Your task to perform on an android device: open app "Google Play services" Image 0: 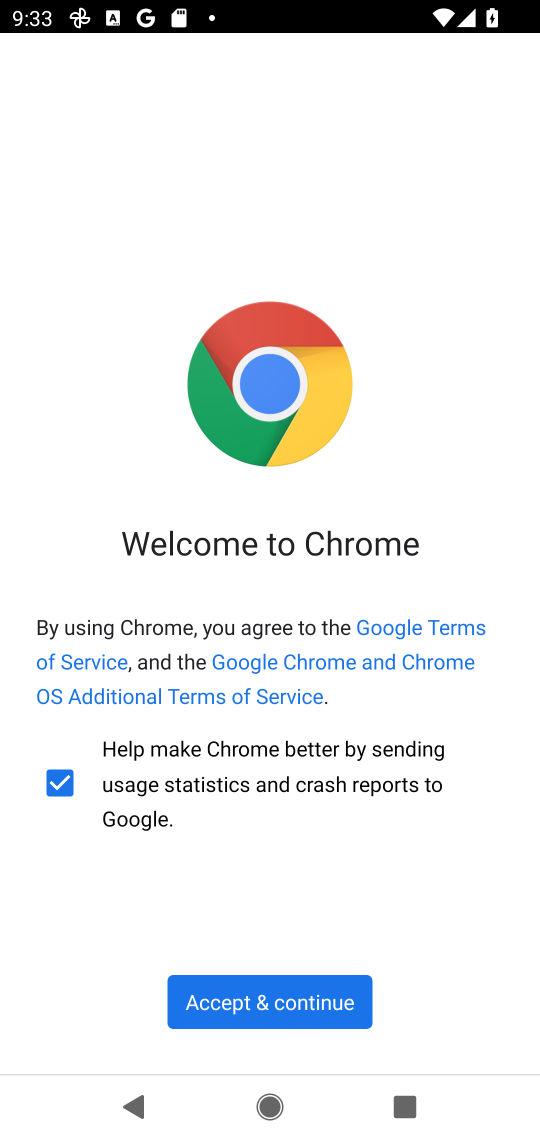
Step 0: press home button
Your task to perform on an android device: open app "Google Play services" Image 1: 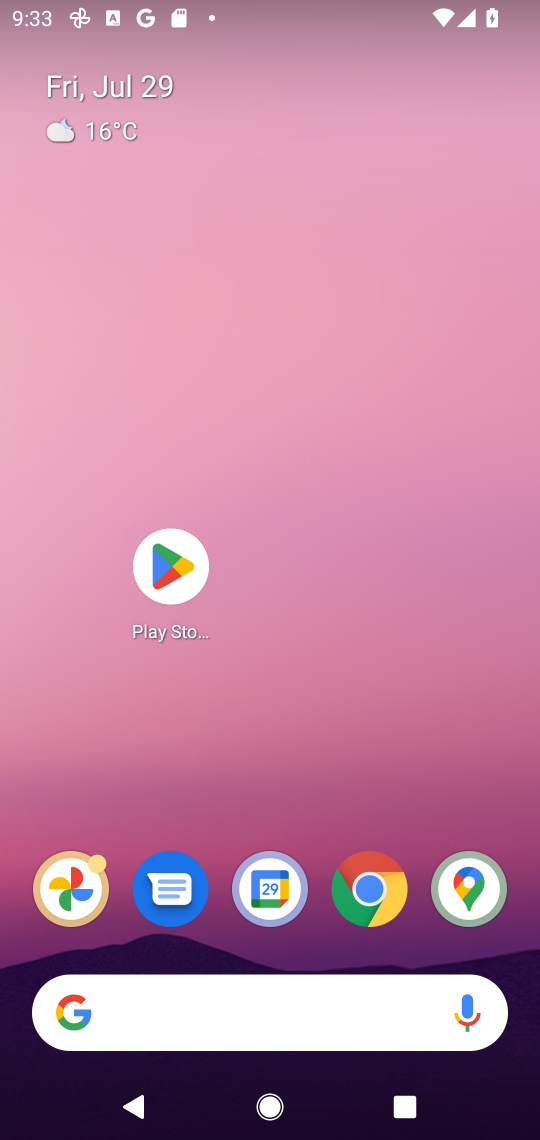
Step 1: click (180, 567)
Your task to perform on an android device: open app "Google Play services" Image 2: 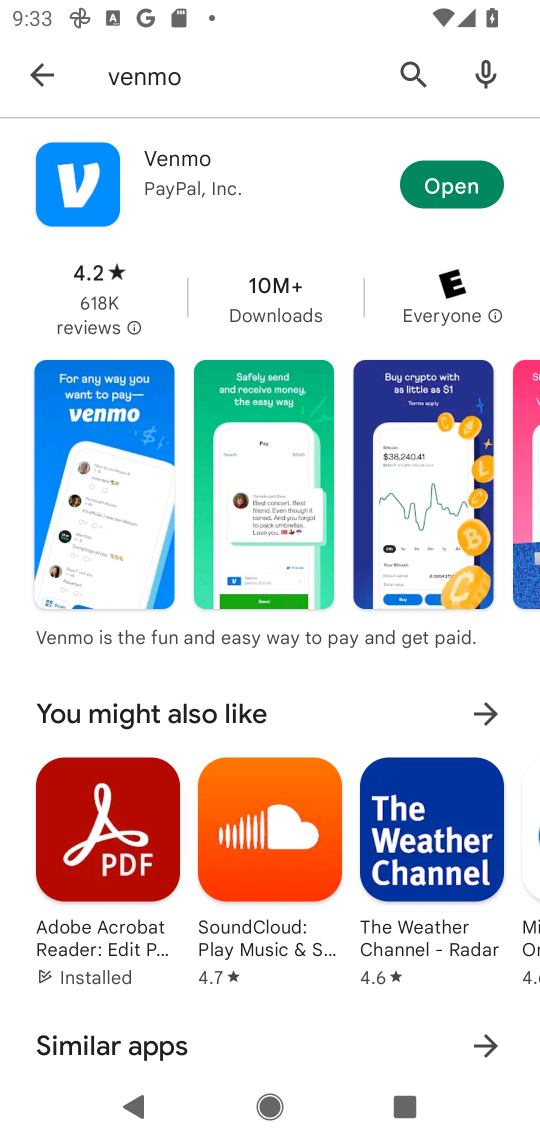
Step 2: click (403, 72)
Your task to perform on an android device: open app "Google Play services" Image 3: 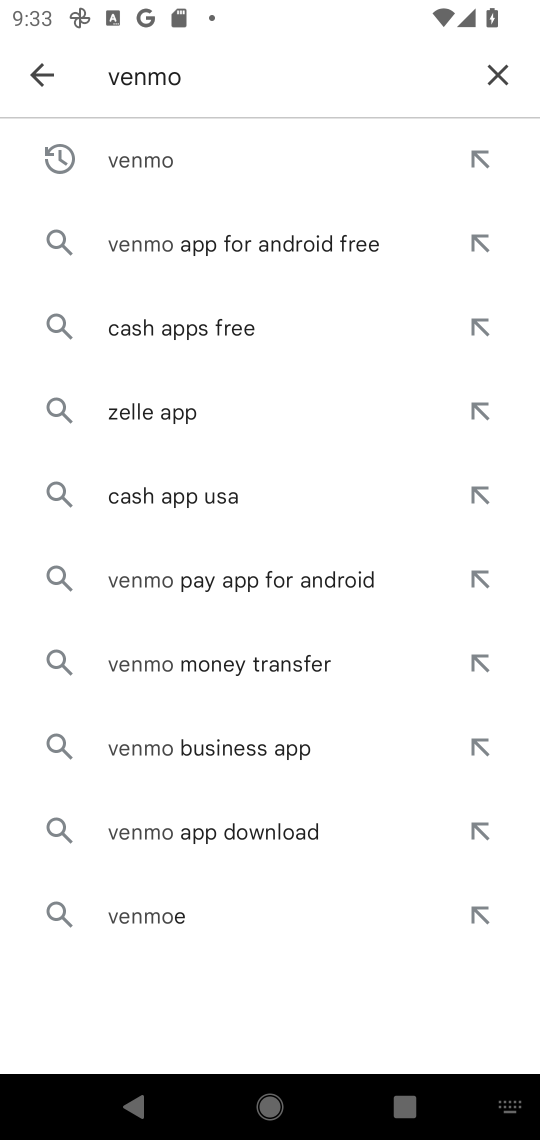
Step 3: click (500, 71)
Your task to perform on an android device: open app "Google Play services" Image 4: 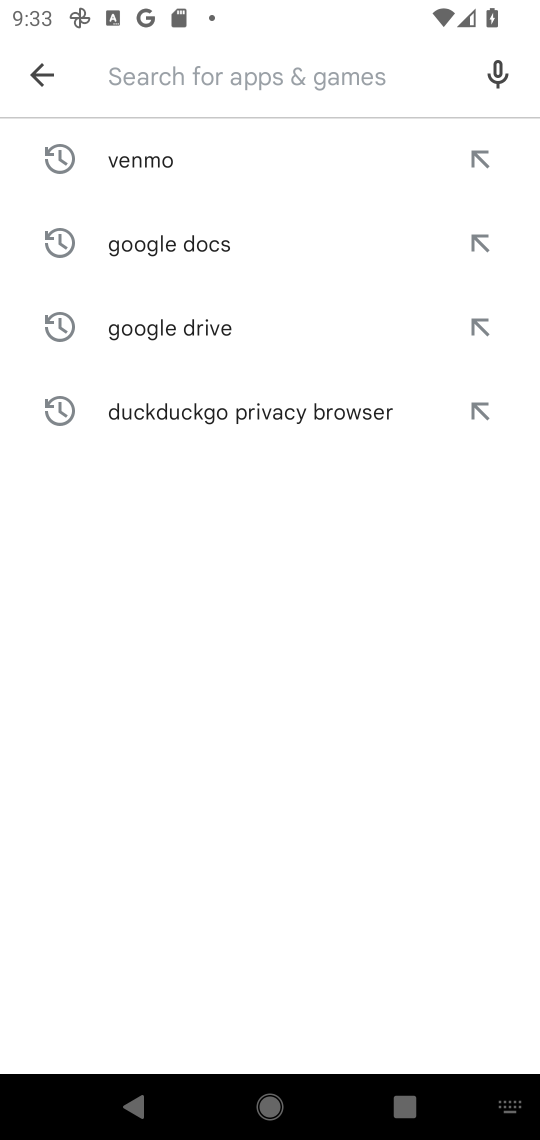
Step 4: type "Google Play services"
Your task to perform on an android device: open app "Google Play services" Image 5: 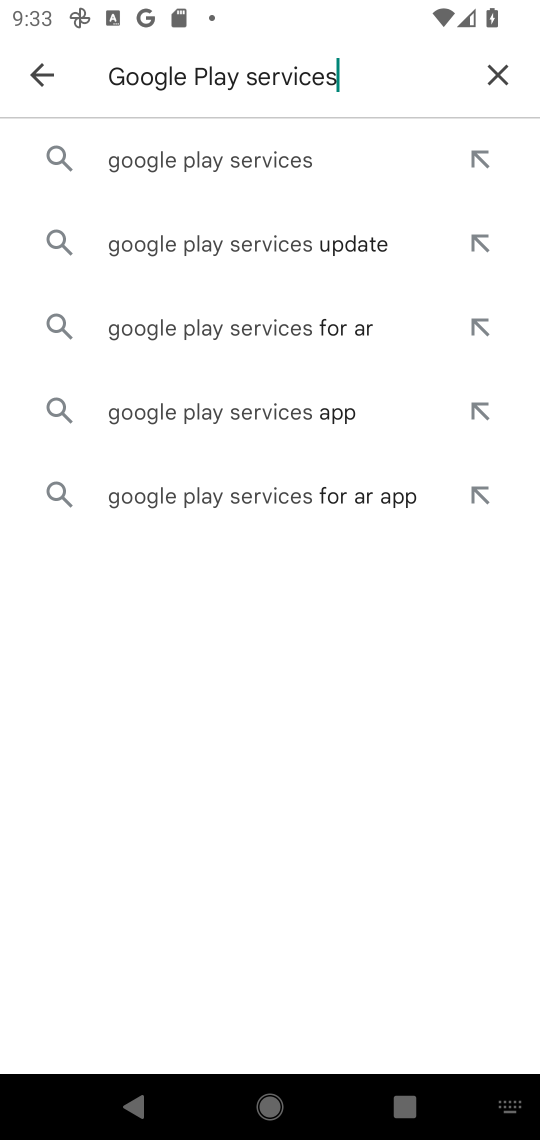
Step 5: click (204, 149)
Your task to perform on an android device: open app "Google Play services" Image 6: 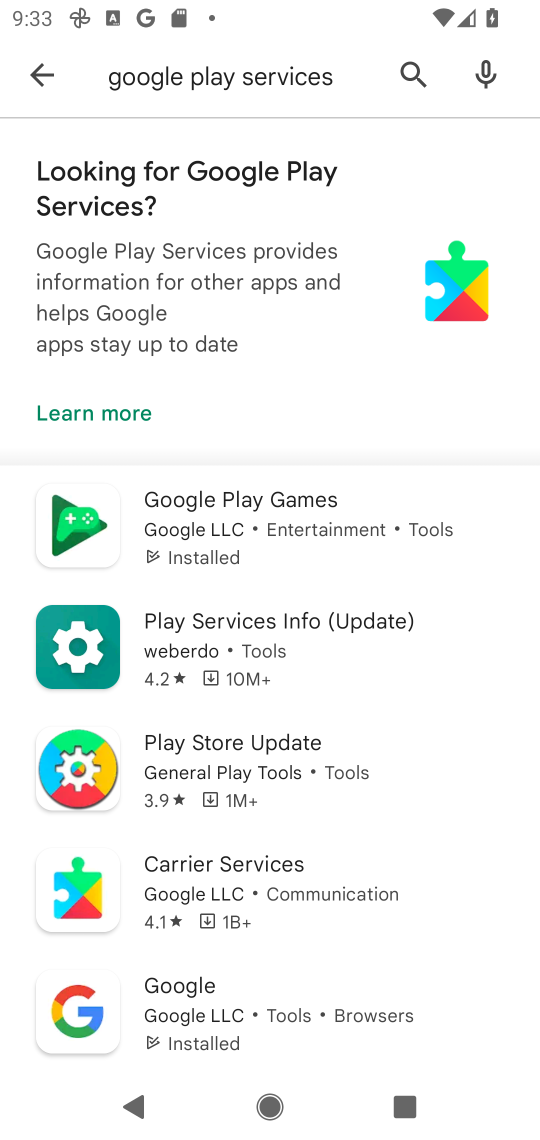
Step 6: task complete